Your task to perform on an android device: Go to notification settings Image 0: 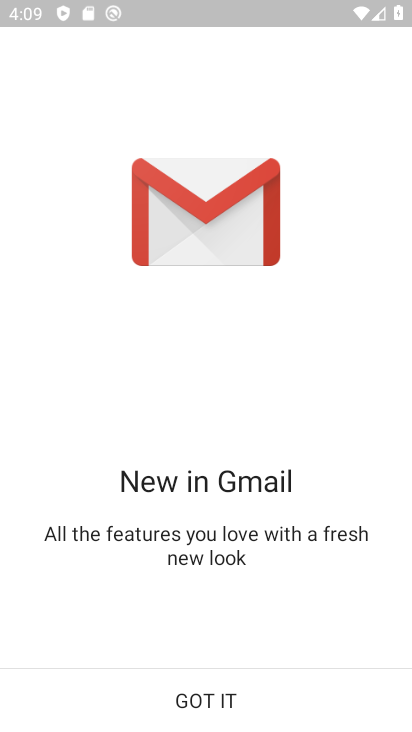
Step 0: press home button
Your task to perform on an android device: Go to notification settings Image 1: 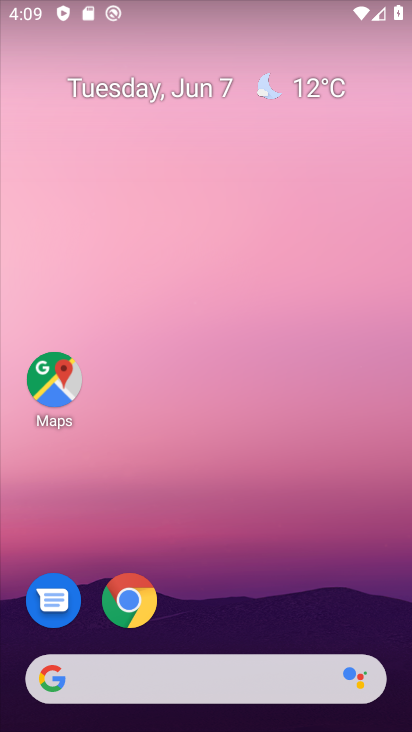
Step 1: drag from (190, 658) to (176, 338)
Your task to perform on an android device: Go to notification settings Image 2: 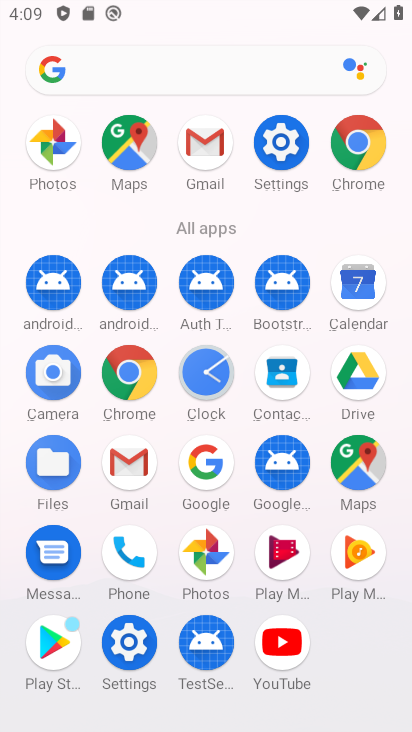
Step 2: click (265, 160)
Your task to perform on an android device: Go to notification settings Image 3: 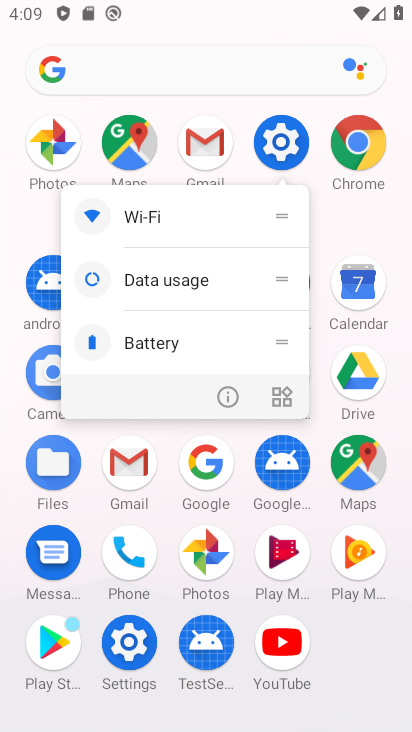
Step 3: click (278, 160)
Your task to perform on an android device: Go to notification settings Image 4: 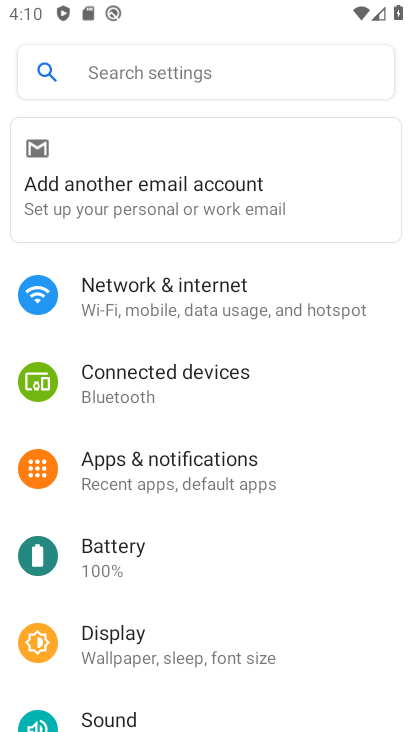
Step 4: click (178, 468)
Your task to perform on an android device: Go to notification settings Image 5: 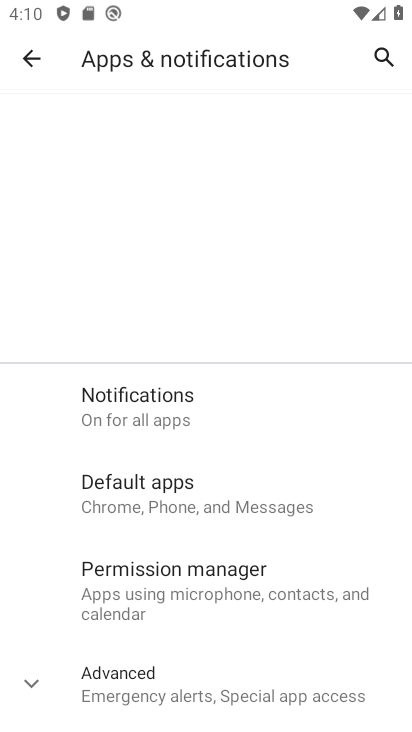
Step 5: drag from (197, 647) to (197, 211)
Your task to perform on an android device: Go to notification settings Image 6: 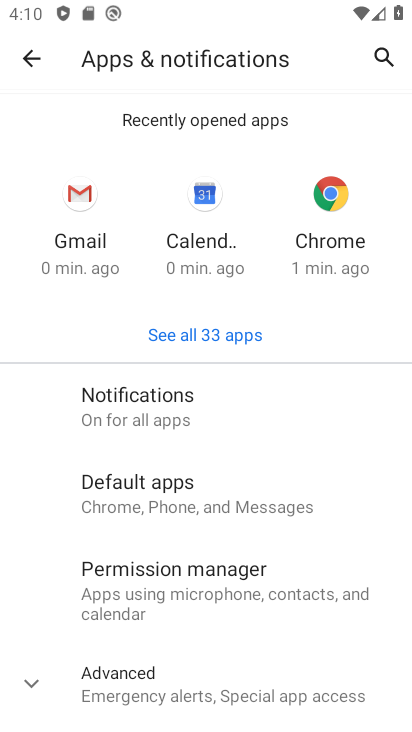
Step 6: click (164, 672)
Your task to perform on an android device: Go to notification settings Image 7: 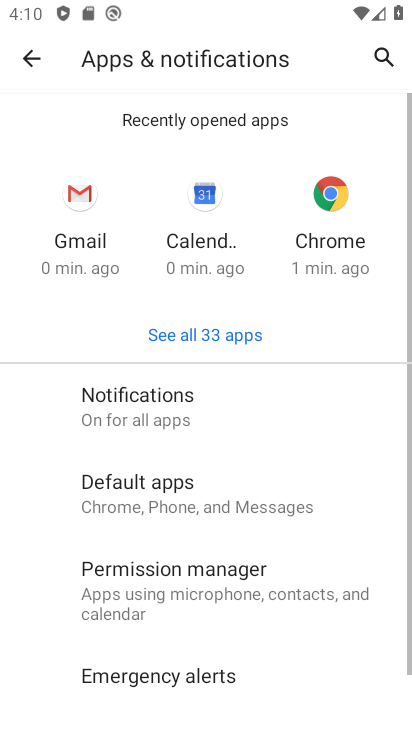
Step 7: task complete